Your task to perform on an android device: Open Amazon Image 0: 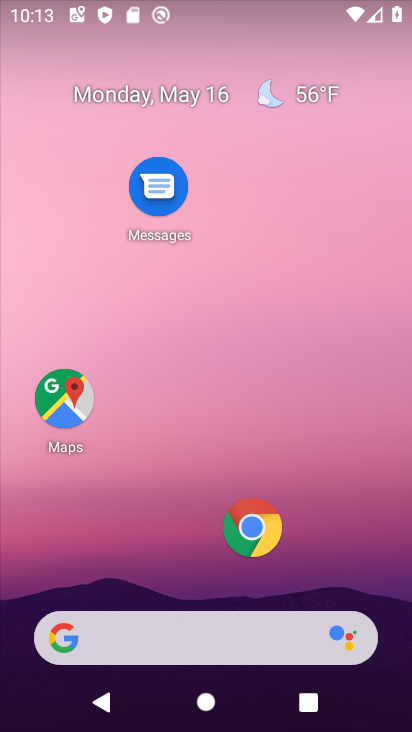
Step 0: drag from (191, 545) to (194, 54)
Your task to perform on an android device: Open Amazon Image 1: 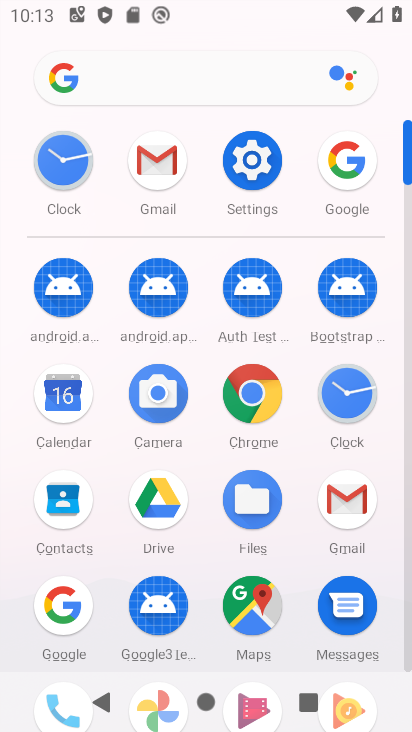
Step 1: click (252, 393)
Your task to perform on an android device: Open Amazon Image 2: 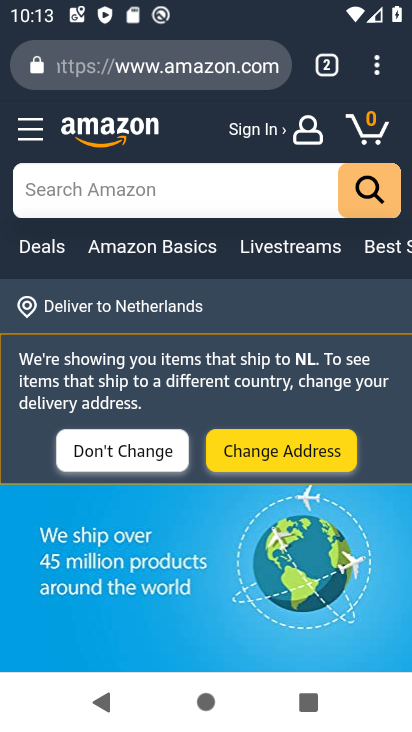
Step 2: task complete